Your task to perform on an android device: Is it going to rain tomorrow? Image 0: 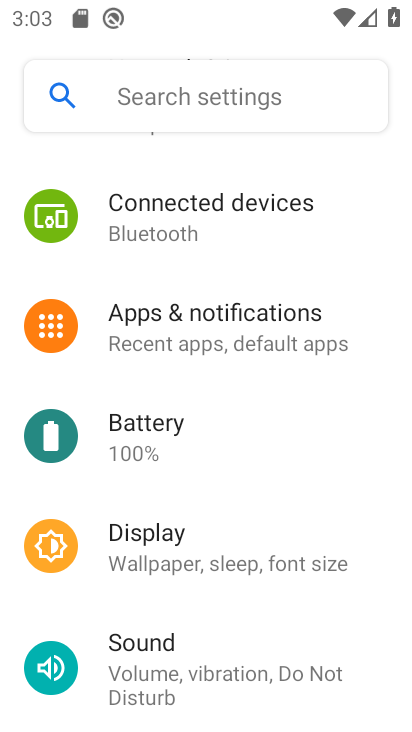
Step 0: press home button
Your task to perform on an android device: Is it going to rain tomorrow? Image 1: 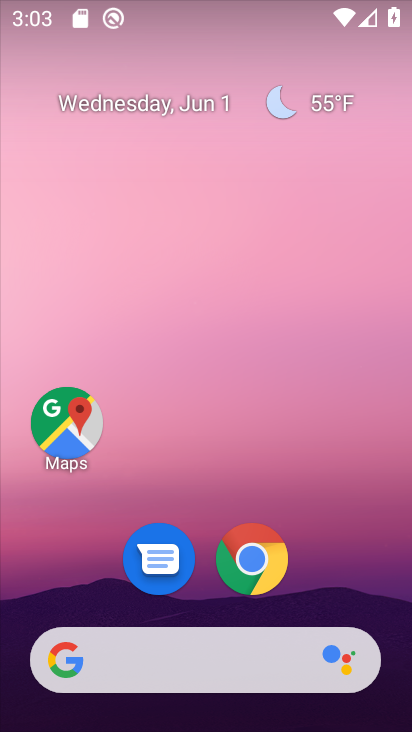
Step 1: click (175, 663)
Your task to perform on an android device: Is it going to rain tomorrow? Image 2: 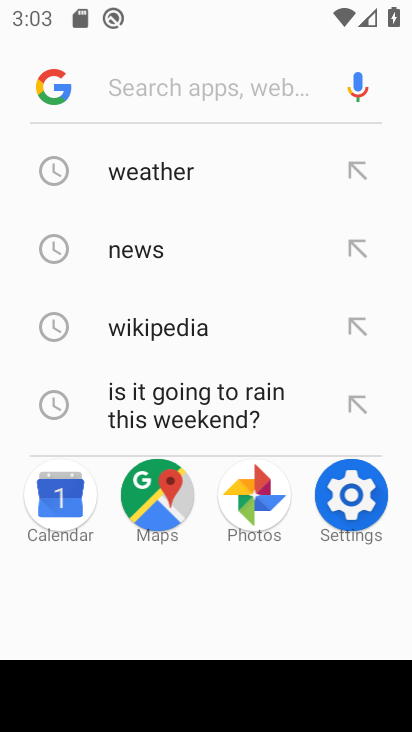
Step 2: click (164, 156)
Your task to perform on an android device: Is it going to rain tomorrow? Image 3: 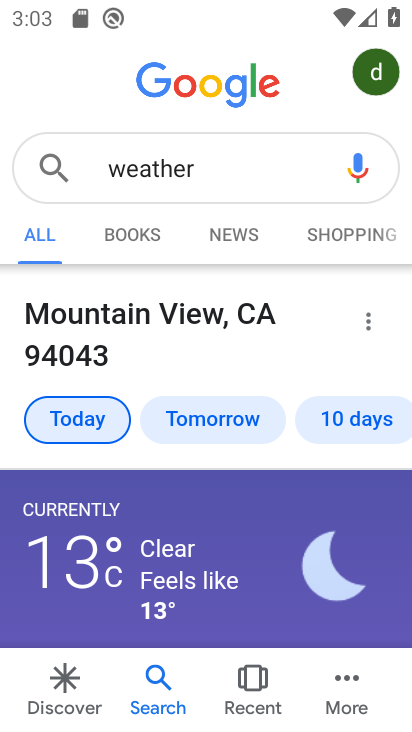
Step 3: click (153, 410)
Your task to perform on an android device: Is it going to rain tomorrow? Image 4: 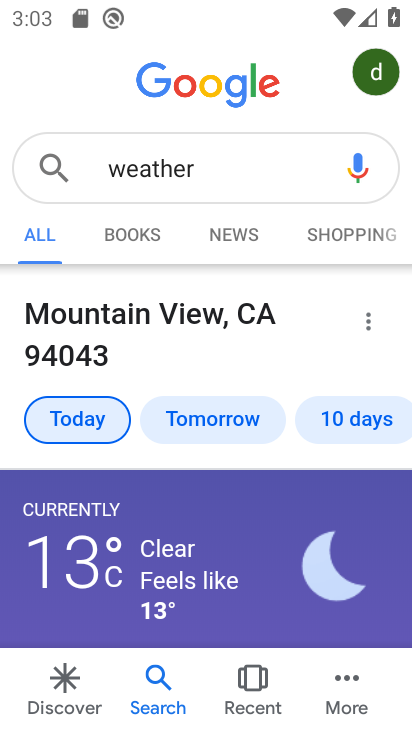
Step 4: click (213, 430)
Your task to perform on an android device: Is it going to rain tomorrow? Image 5: 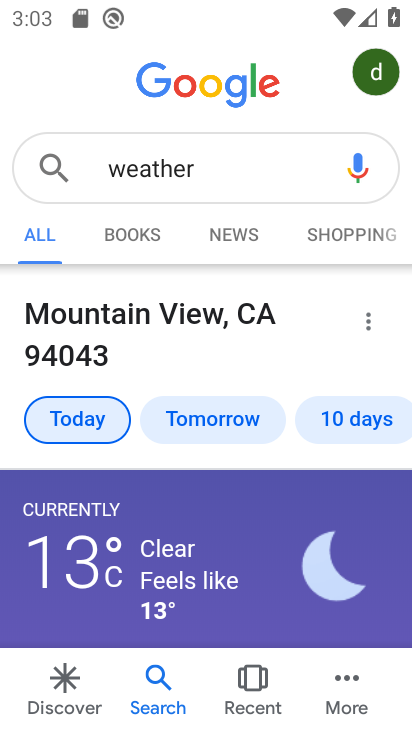
Step 5: drag from (228, 476) to (214, 270)
Your task to perform on an android device: Is it going to rain tomorrow? Image 6: 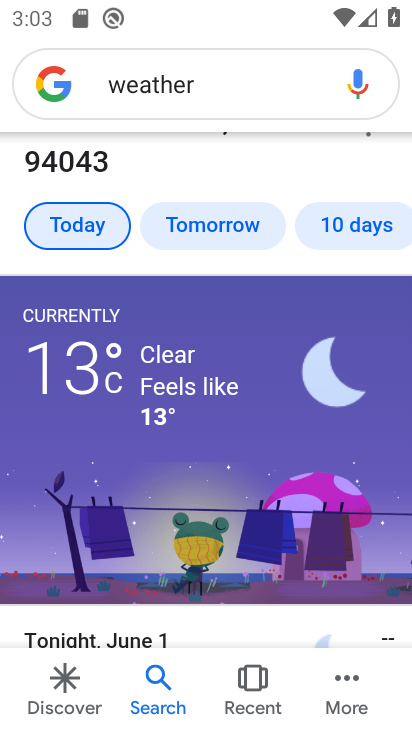
Step 6: click (212, 233)
Your task to perform on an android device: Is it going to rain tomorrow? Image 7: 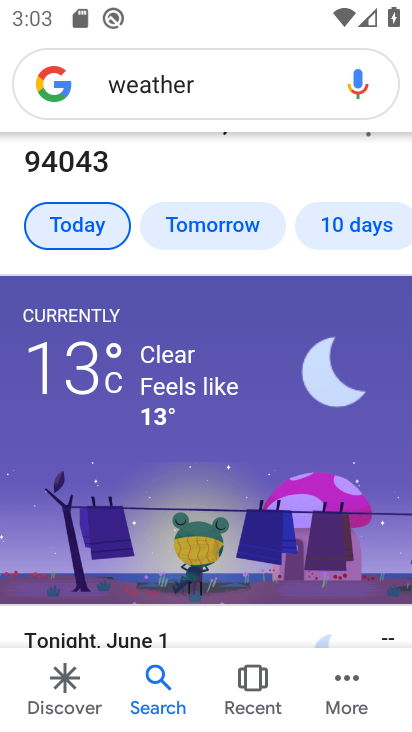
Step 7: click (213, 230)
Your task to perform on an android device: Is it going to rain tomorrow? Image 8: 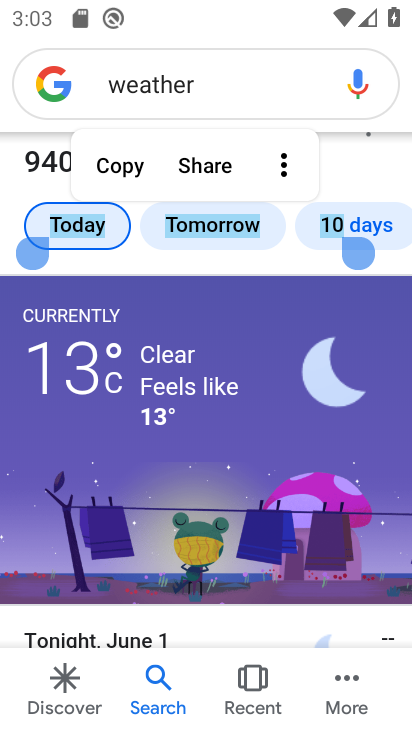
Step 8: click (213, 225)
Your task to perform on an android device: Is it going to rain tomorrow? Image 9: 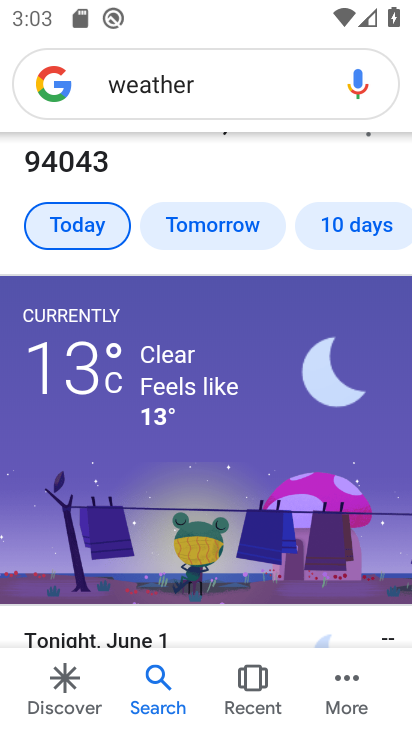
Step 9: task complete